Your task to perform on an android device: Go to ESPN.com Image 0: 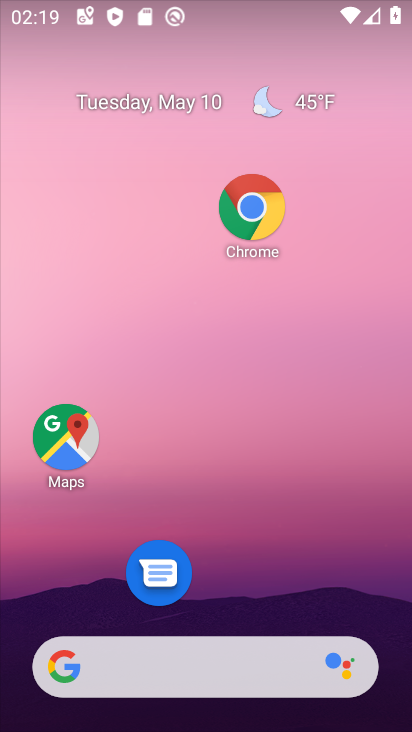
Step 0: click (267, 210)
Your task to perform on an android device: Go to ESPN.com Image 1: 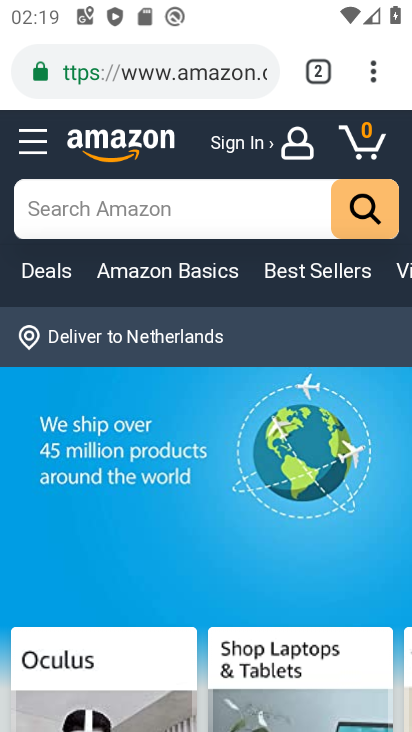
Step 1: click (161, 68)
Your task to perform on an android device: Go to ESPN.com Image 2: 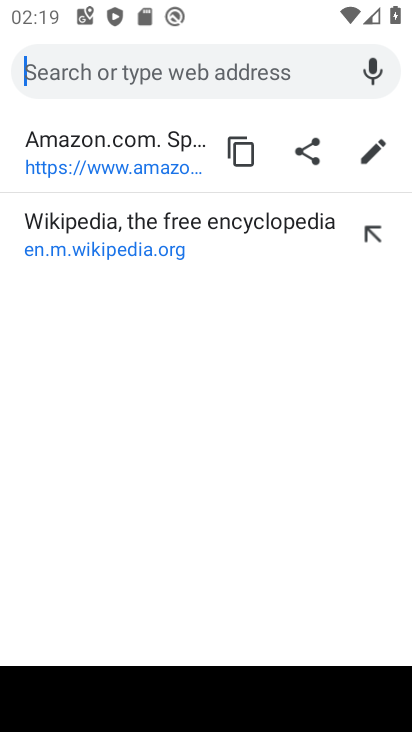
Step 2: type "ESPN.com"
Your task to perform on an android device: Go to ESPN.com Image 3: 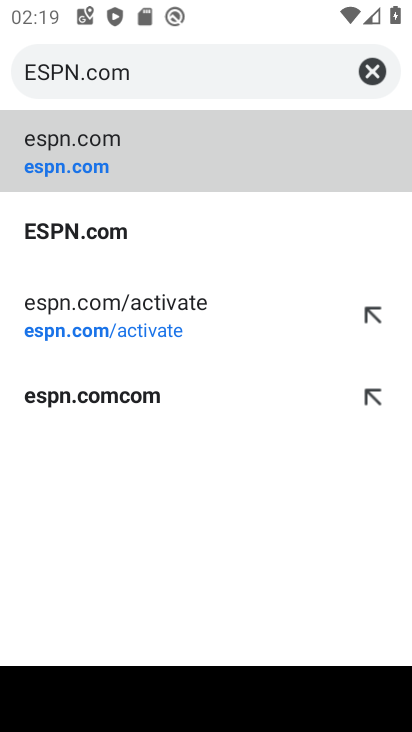
Step 3: click (111, 164)
Your task to perform on an android device: Go to ESPN.com Image 4: 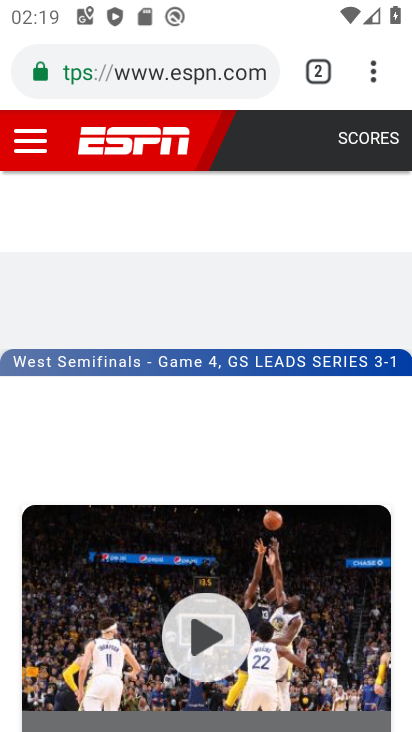
Step 4: task complete